Your task to perform on an android device: Go to ESPN.com Image 0: 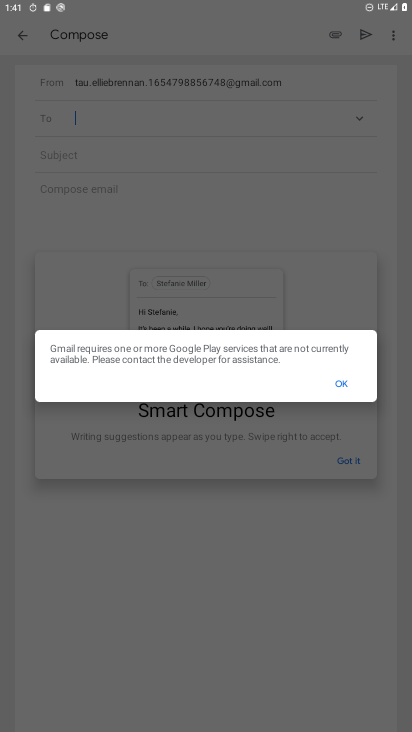
Step 0: press home button
Your task to perform on an android device: Go to ESPN.com Image 1: 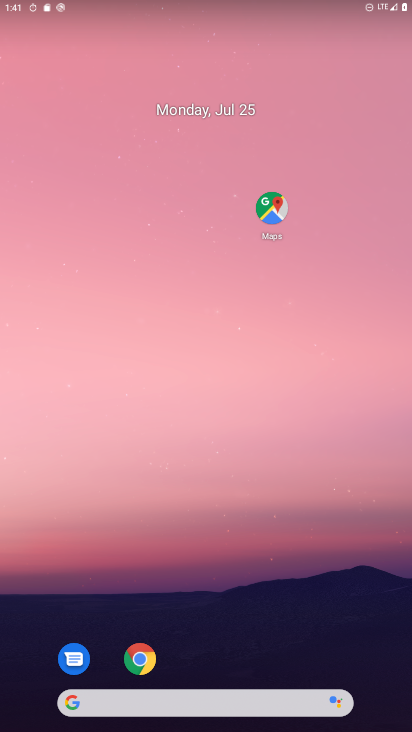
Step 1: click (106, 707)
Your task to perform on an android device: Go to ESPN.com Image 2: 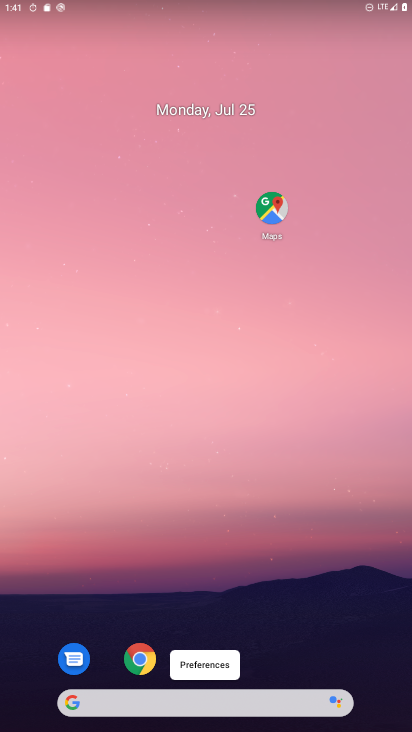
Step 2: click (112, 700)
Your task to perform on an android device: Go to ESPN.com Image 3: 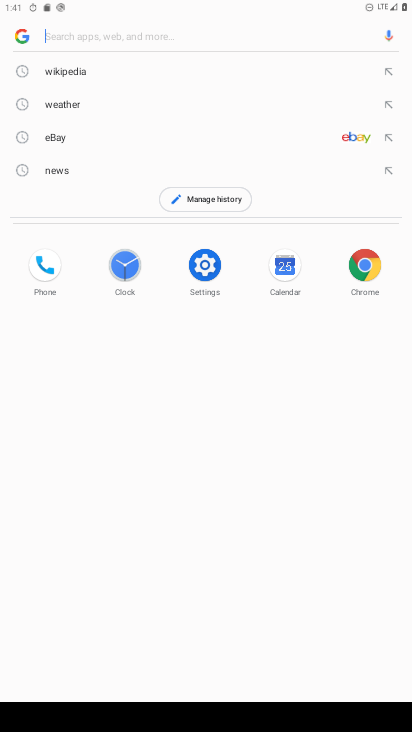
Step 3: type "ESPN.com"
Your task to perform on an android device: Go to ESPN.com Image 4: 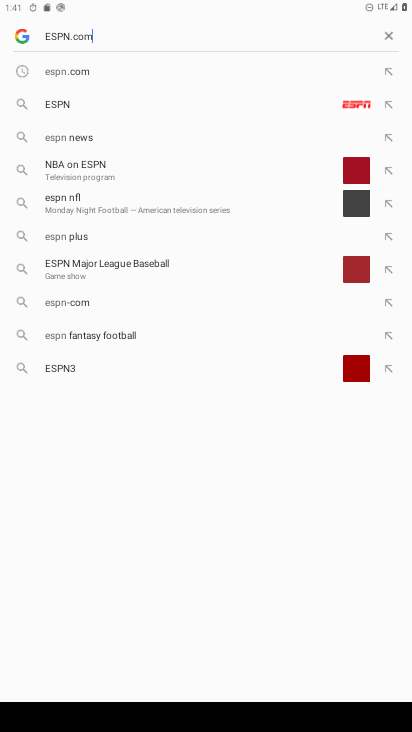
Step 4: type ""
Your task to perform on an android device: Go to ESPN.com Image 5: 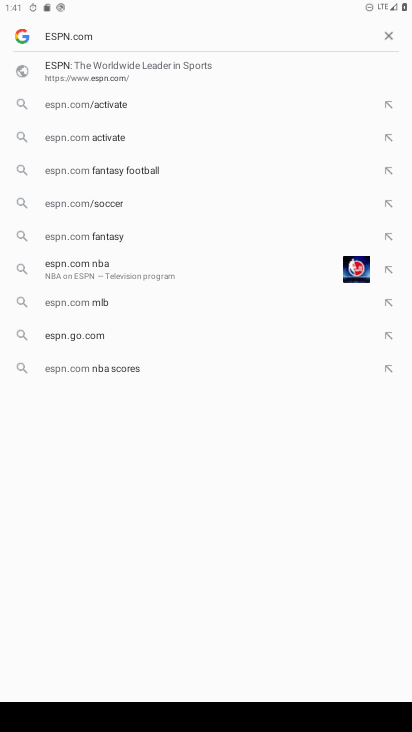
Step 5: task complete